Your task to perform on an android device: Show me popular videos on Youtube Image 0: 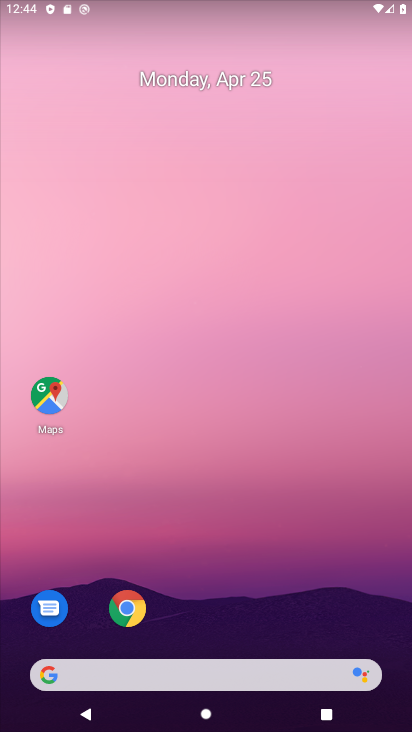
Step 0: drag from (332, 548) to (309, 76)
Your task to perform on an android device: Show me popular videos on Youtube Image 1: 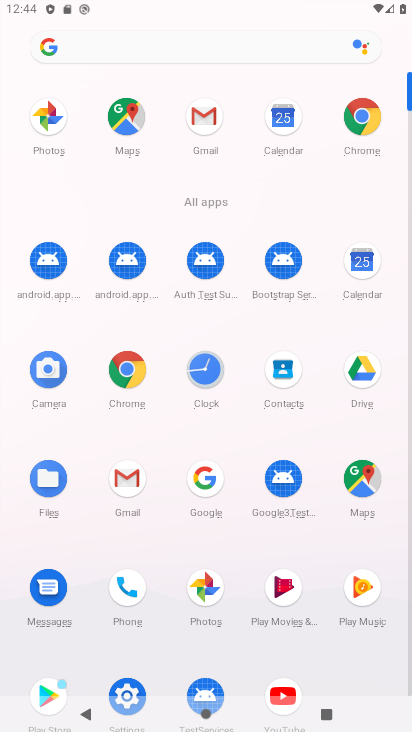
Step 1: click (278, 696)
Your task to perform on an android device: Show me popular videos on Youtube Image 2: 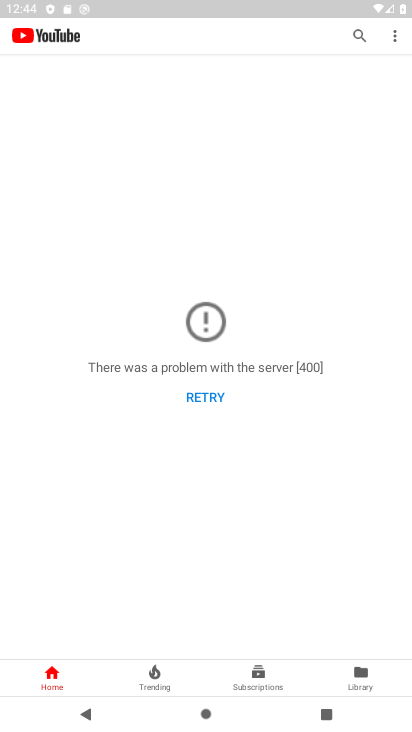
Step 2: click (160, 681)
Your task to perform on an android device: Show me popular videos on Youtube Image 3: 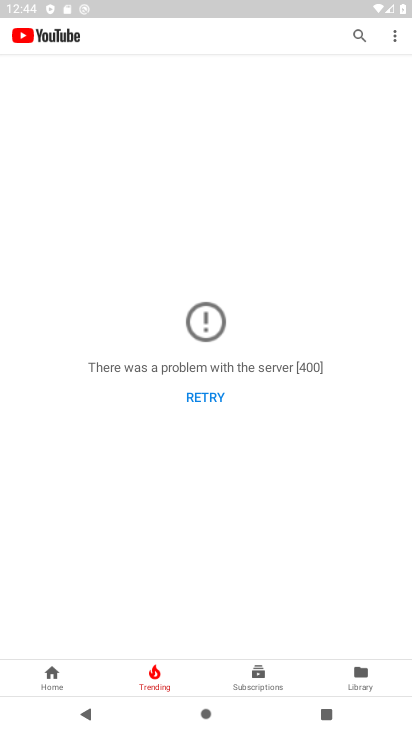
Step 3: task complete